Your task to perform on an android device: Open maps Image 0: 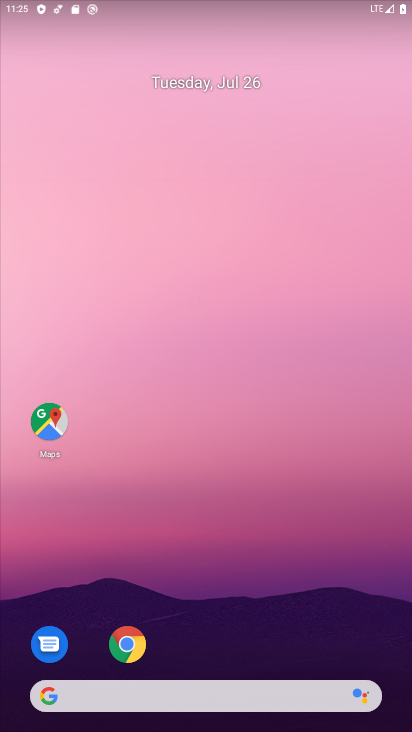
Step 0: click (53, 415)
Your task to perform on an android device: Open maps Image 1: 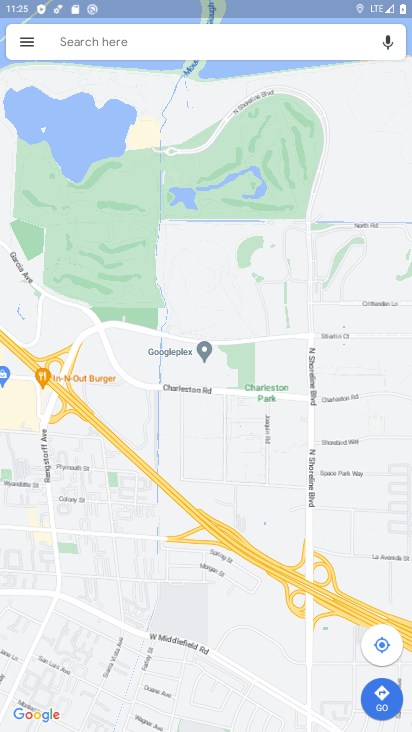
Step 1: task complete